Your task to perform on an android device: change notifications settings Image 0: 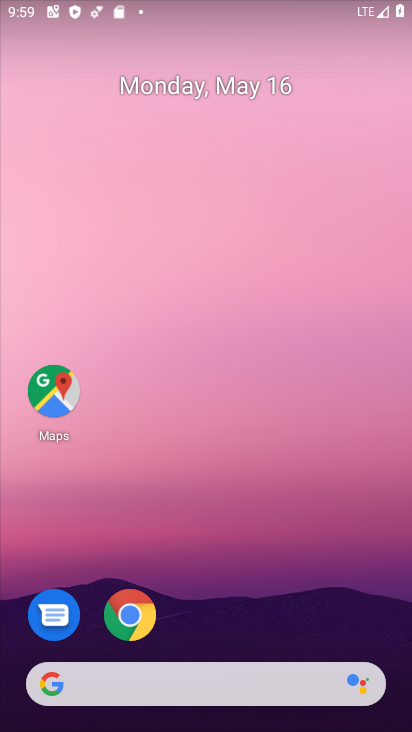
Step 0: drag from (213, 544) to (213, 112)
Your task to perform on an android device: change notifications settings Image 1: 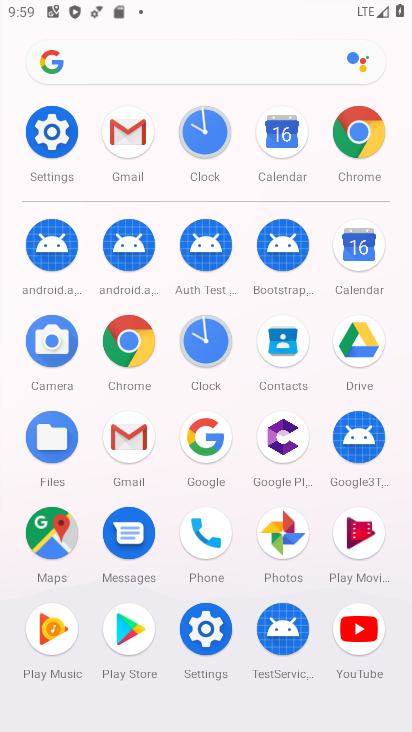
Step 1: click (56, 160)
Your task to perform on an android device: change notifications settings Image 2: 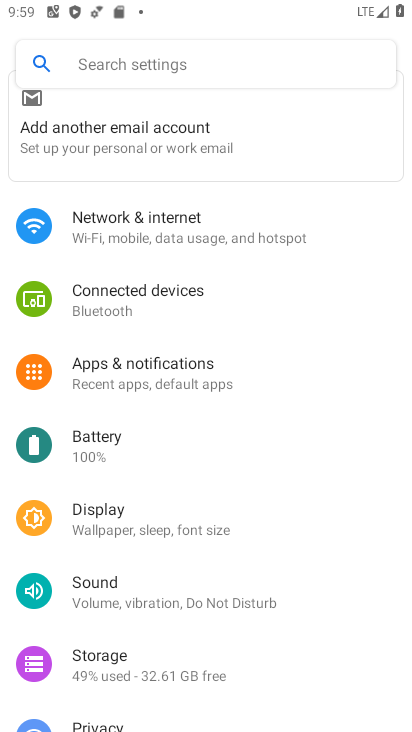
Step 2: click (167, 378)
Your task to perform on an android device: change notifications settings Image 3: 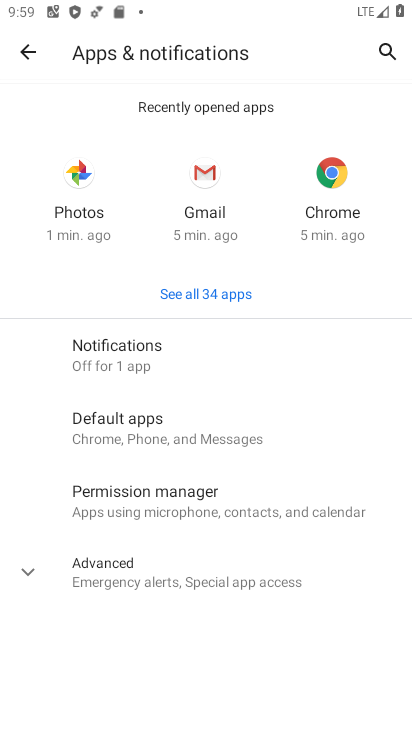
Step 3: click (197, 357)
Your task to perform on an android device: change notifications settings Image 4: 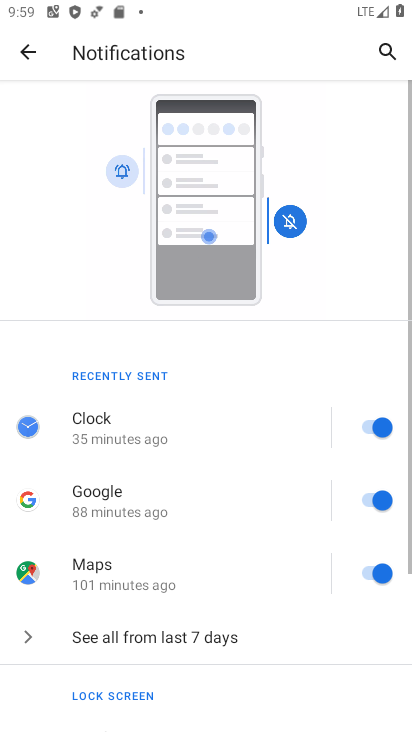
Step 4: drag from (157, 567) to (227, 270)
Your task to perform on an android device: change notifications settings Image 5: 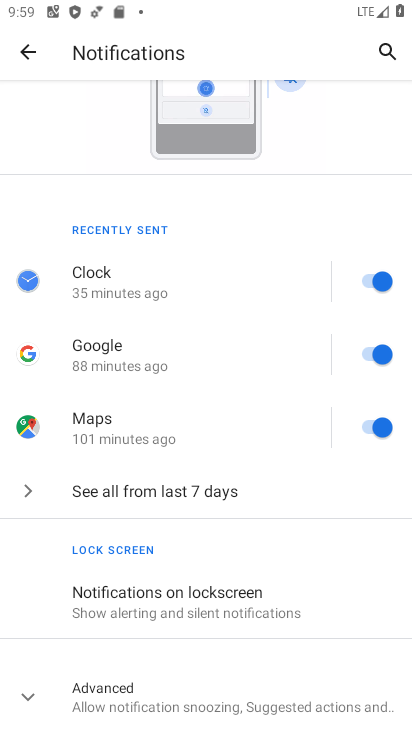
Step 5: drag from (180, 595) to (238, 346)
Your task to perform on an android device: change notifications settings Image 6: 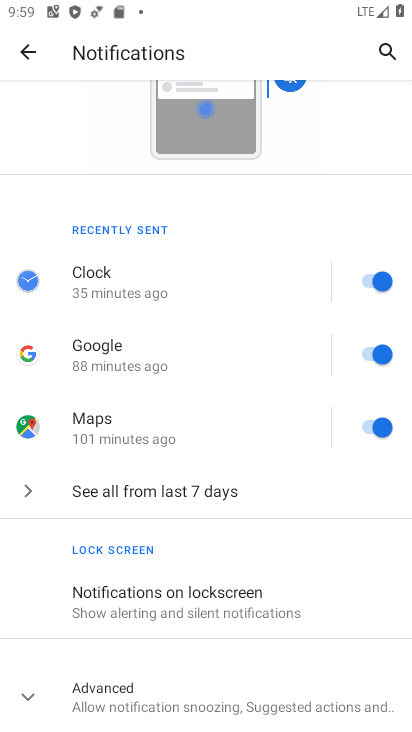
Step 6: click (210, 612)
Your task to perform on an android device: change notifications settings Image 7: 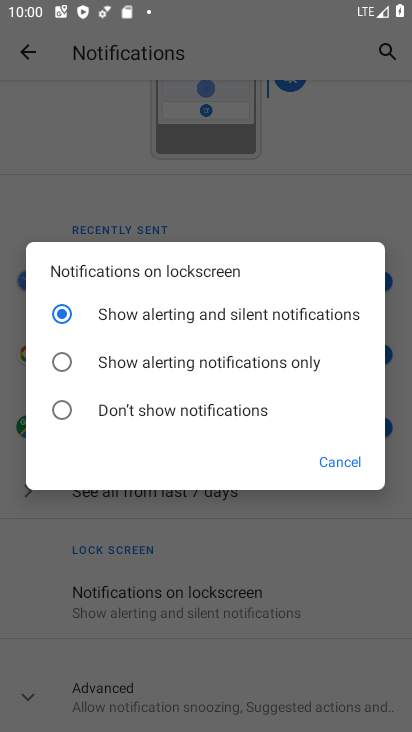
Step 7: click (282, 546)
Your task to perform on an android device: change notifications settings Image 8: 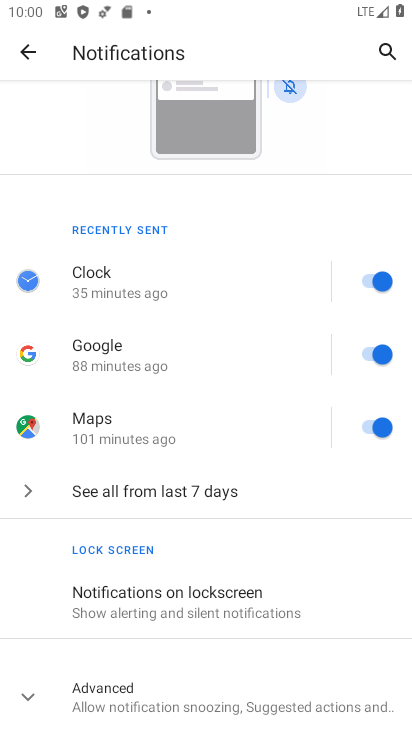
Step 8: click (374, 267)
Your task to perform on an android device: change notifications settings Image 9: 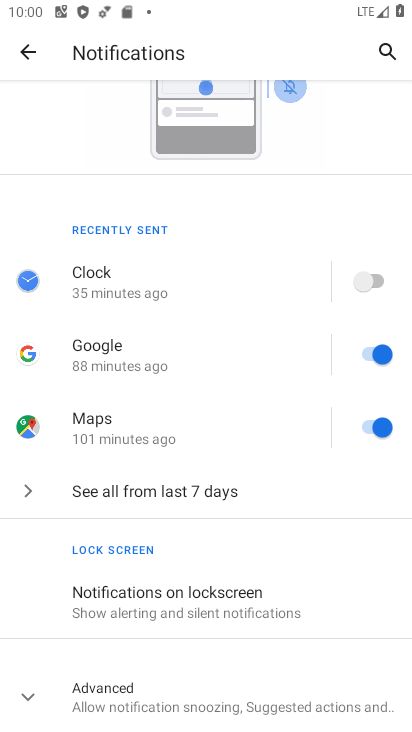
Step 9: task complete